Your task to perform on an android device: turn pop-ups on in chrome Image 0: 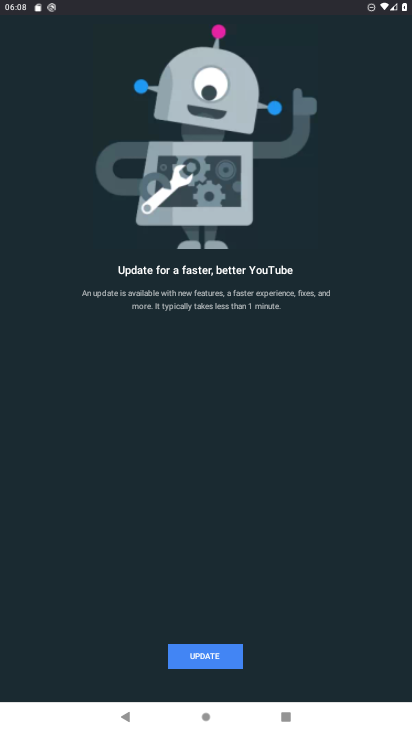
Step 0: press home button
Your task to perform on an android device: turn pop-ups on in chrome Image 1: 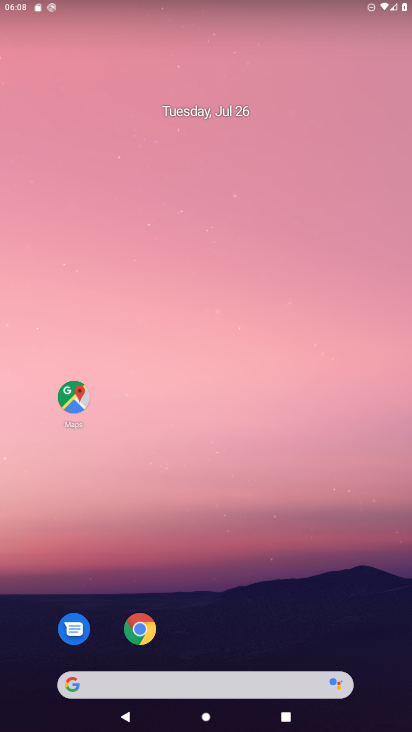
Step 1: click (149, 639)
Your task to perform on an android device: turn pop-ups on in chrome Image 2: 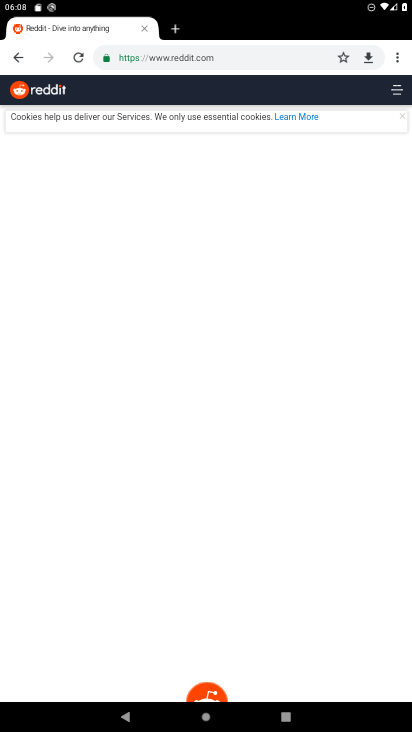
Step 2: click (393, 58)
Your task to perform on an android device: turn pop-ups on in chrome Image 3: 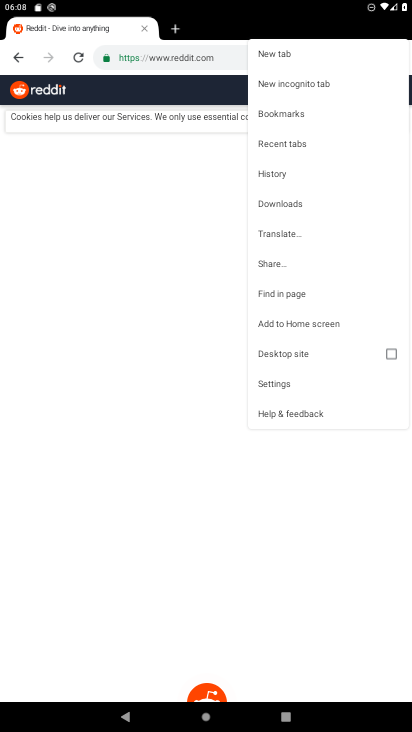
Step 3: click (275, 384)
Your task to perform on an android device: turn pop-ups on in chrome Image 4: 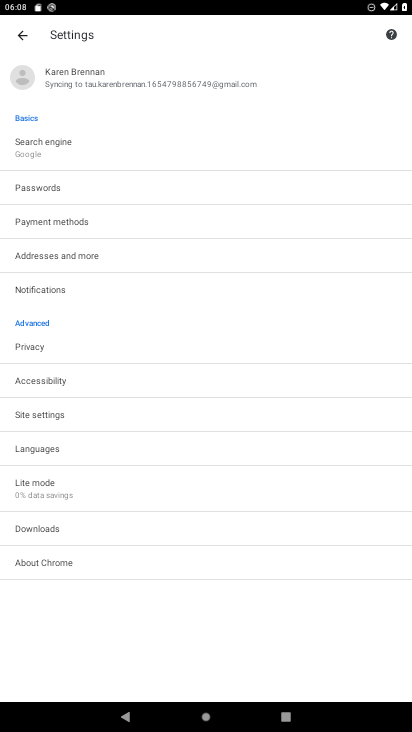
Step 4: click (30, 420)
Your task to perform on an android device: turn pop-ups on in chrome Image 5: 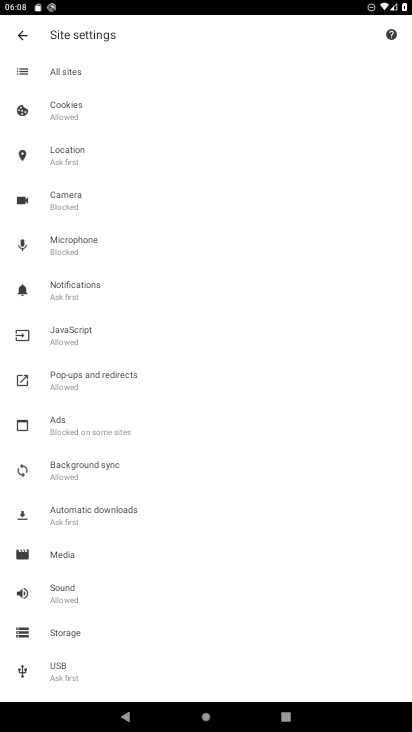
Step 5: click (83, 379)
Your task to perform on an android device: turn pop-ups on in chrome Image 6: 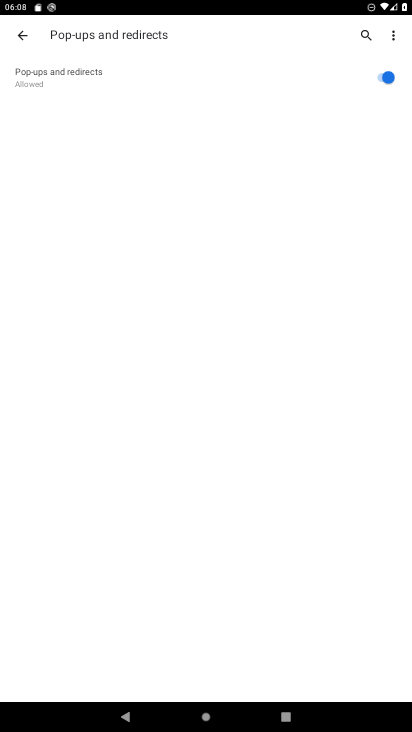
Step 6: task complete